Your task to perform on an android device: set the timer Image 0: 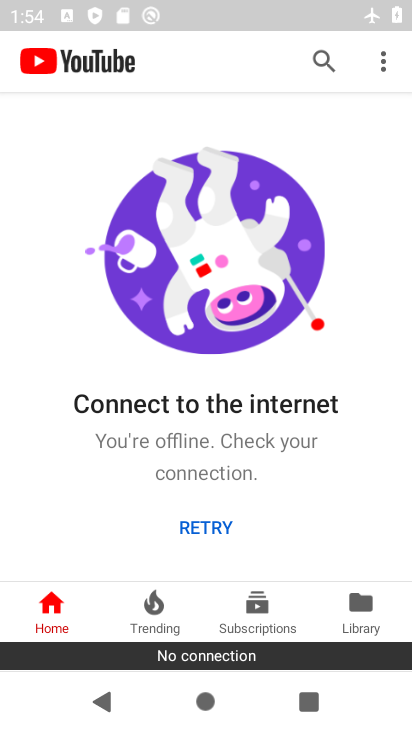
Step 0: press home button
Your task to perform on an android device: set the timer Image 1: 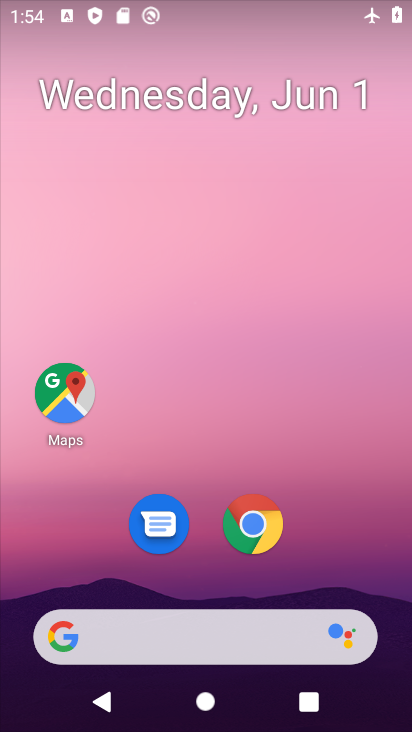
Step 1: drag from (316, 472) to (301, 44)
Your task to perform on an android device: set the timer Image 2: 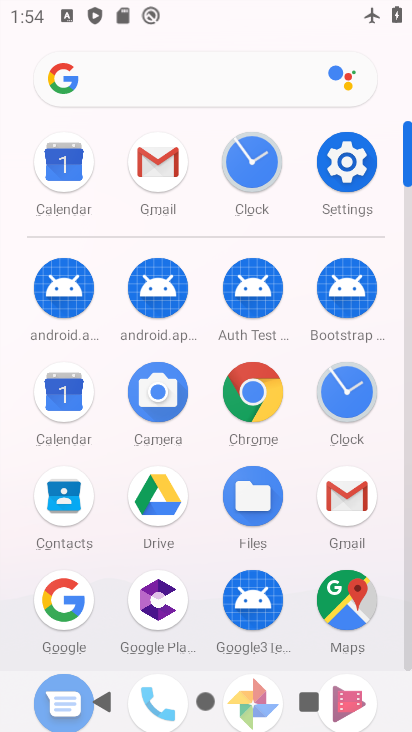
Step 2: click (265, 153)
Your task to perform on an android device: set the timer Image 3: 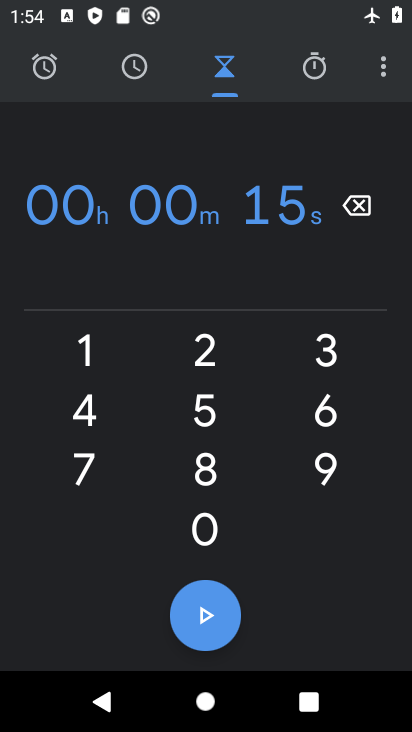
Step 3: click (356, 201)
Your task to perform on an android device: set the timer Image 4: 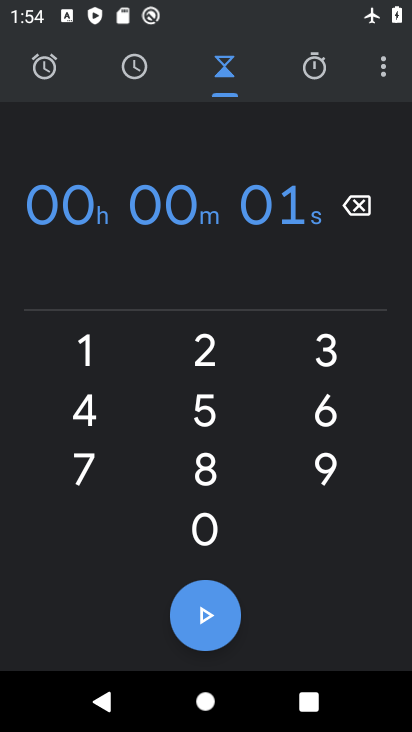
Step 4: click (356, 201)
Your task to perform on an android device: set the timer Image 5: 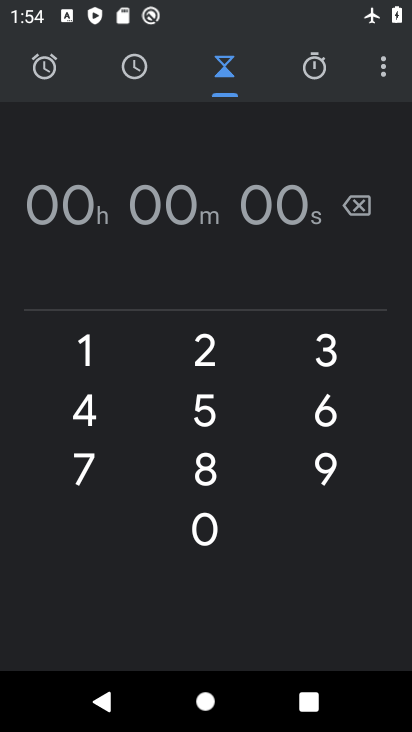
Step 5: click (210, 348)
Your task to perform on an android device: set the timer Image 6: 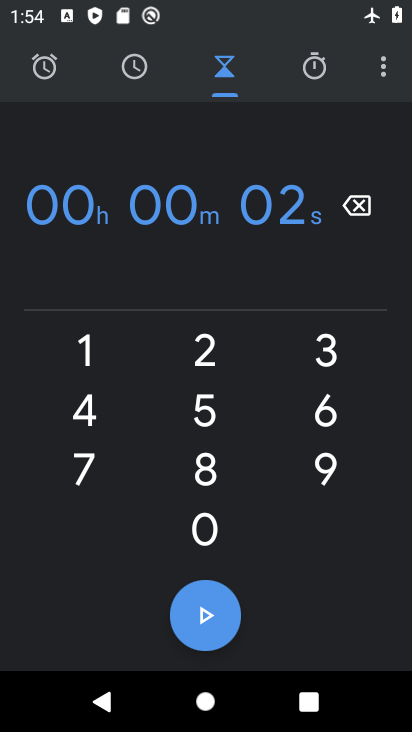
Step 6: click (210, 348)
Your task to perform on an android device: set the timer Image 7: 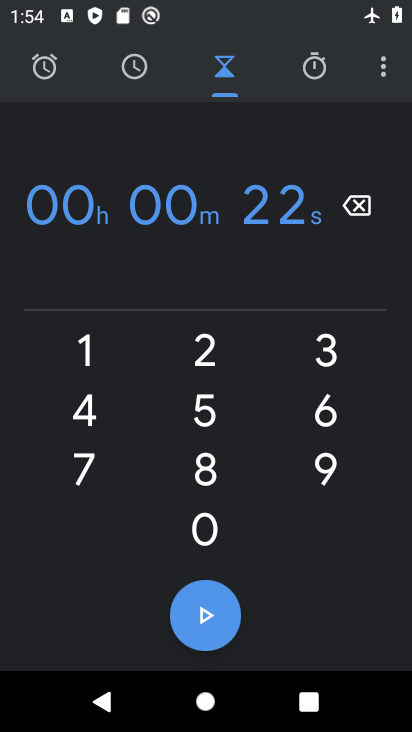
Step 7: task complete